Your task to perform on an android device: set the timer Image 0: 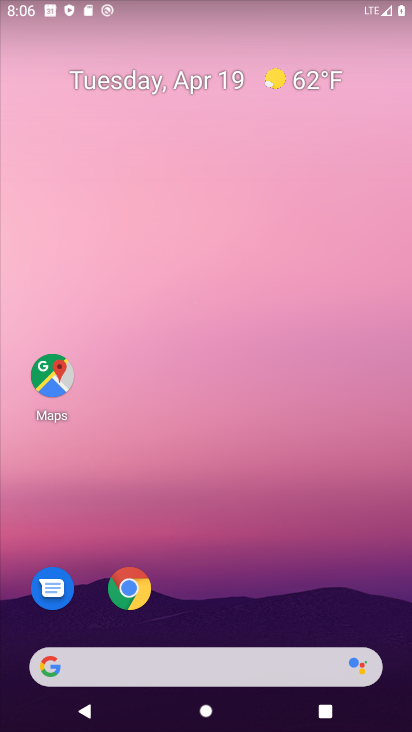
Step 0: drag from (223, 549) to (172, 23)
Your task to perform on an android device: set the timer Image 1: 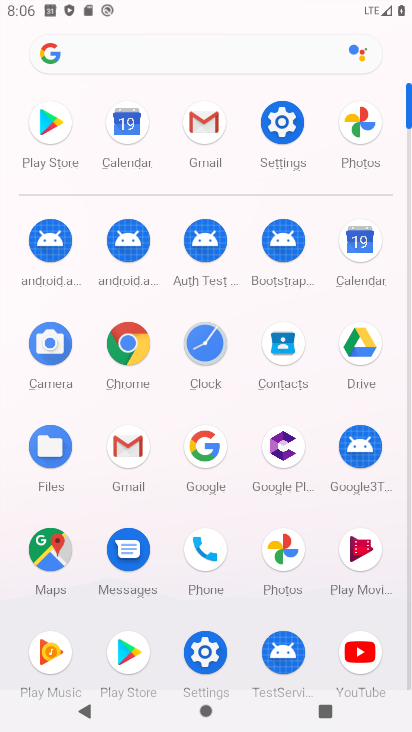
Step 1: click (213, 350)
Your task to perform on an android device: set the timer Image 2: 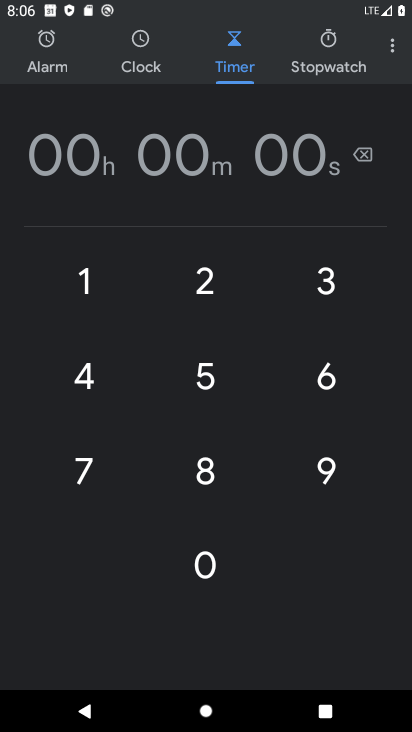
Step 2: click (90, 286)
Your task to perform on an android device: set the timer Image 3: 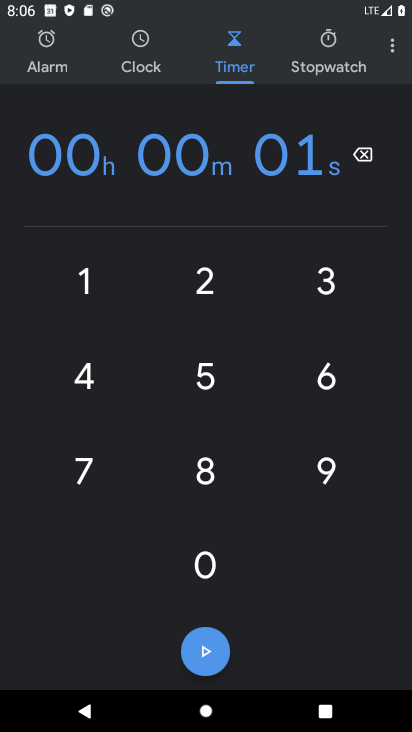
Step 3: click (90, 286)
Your task to perform on an android device: set the timer Image 4: 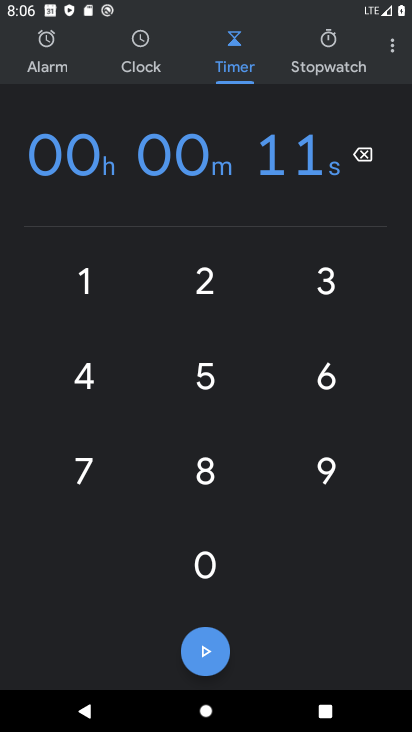
Step 4: click (90, 286)
Your task to perform on an android device: set the timer Image 5: 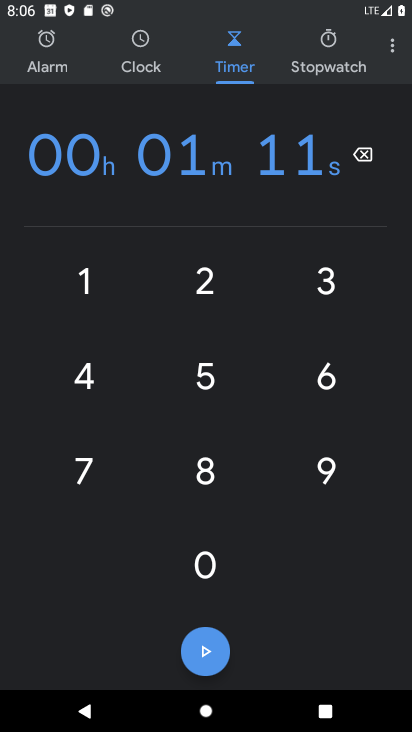
Step 5: click (90, 286)
Your task to perform on an android device: set the timer Image 6: 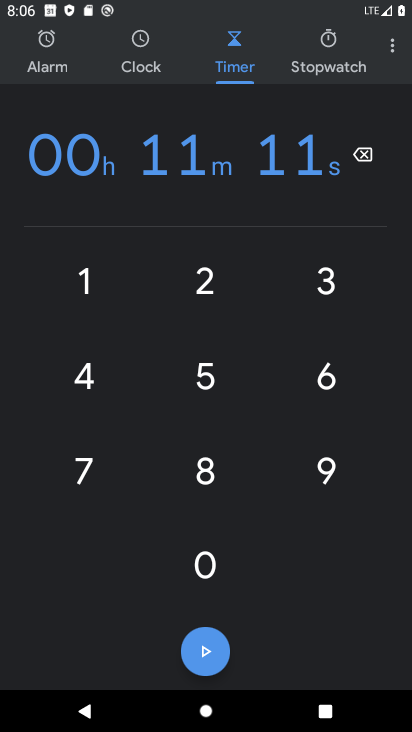
Step 6: click (90, 286)
Your task to perform on an android device: set the timer Image 7: 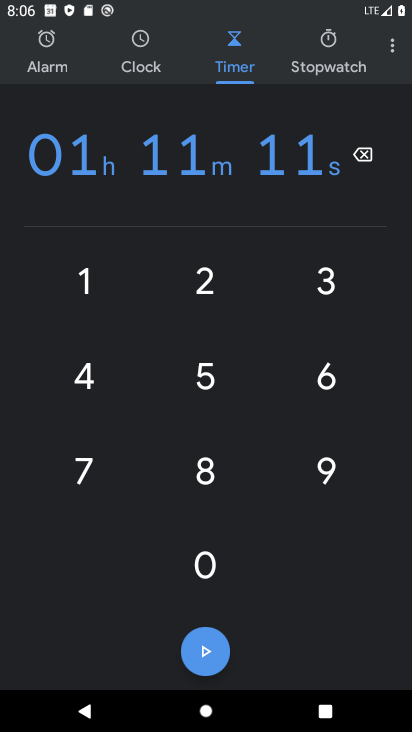
Step 7: click (90, 286)
Your task to perform on an android device: set the timer Image 8: 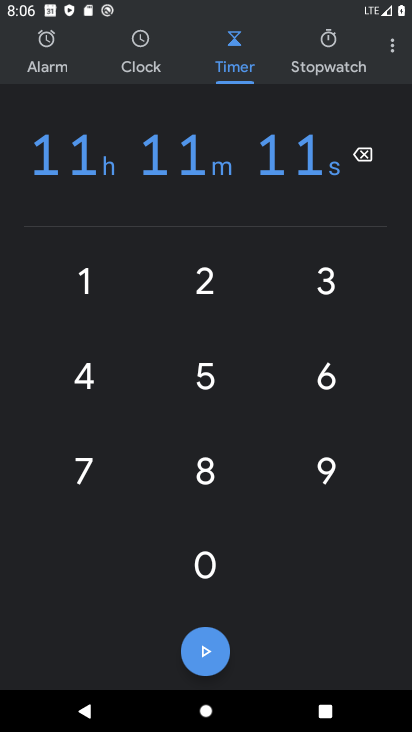
Step 8: task complete